Your task to perform on an android device: visit the assistant section in the google photos Image 0: 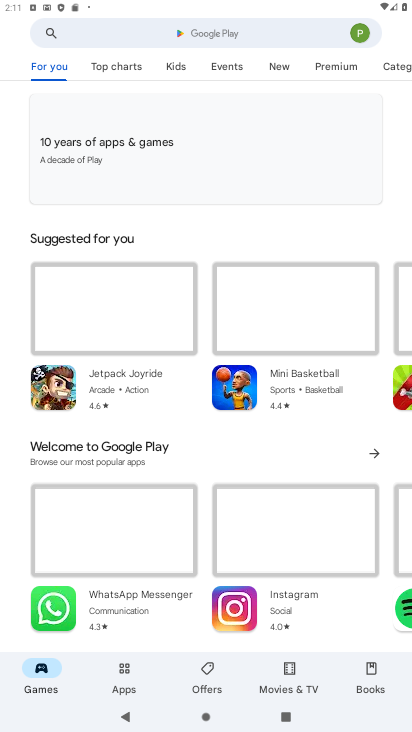
Step 0: press home button
Your task to perform on an android device: visit the assistant section in the google photos Image 1: 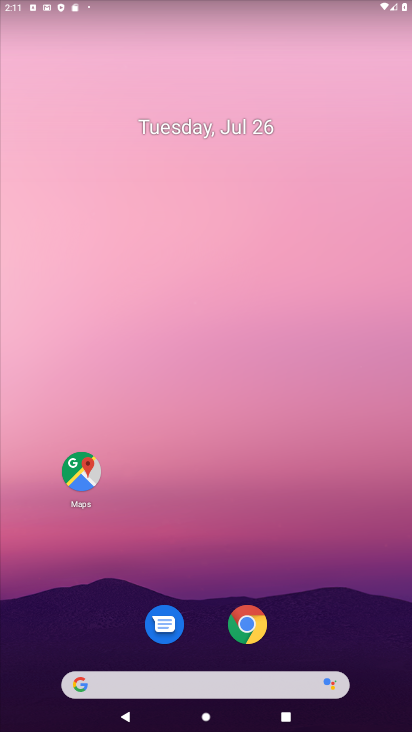
Step 1: drag from (203, 677) to (206, 77)
Your task to perform on an android device: visit the assistant section in the google photos Image 2: 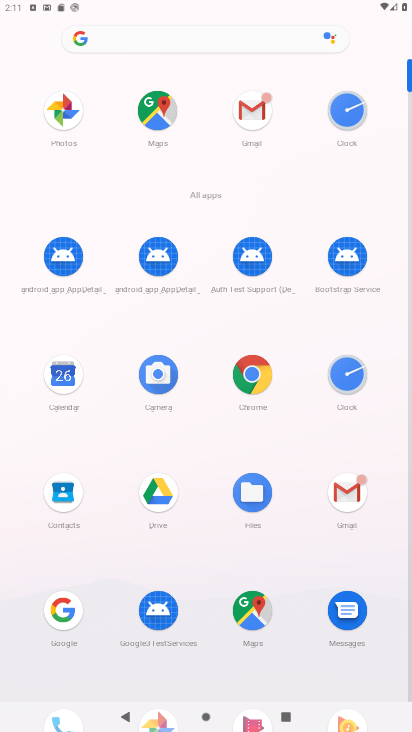
Step 2: drag from (204, 666) to (213, 296)
Your task to perform on an android device: visit the assistant section in the google photos Image 3: 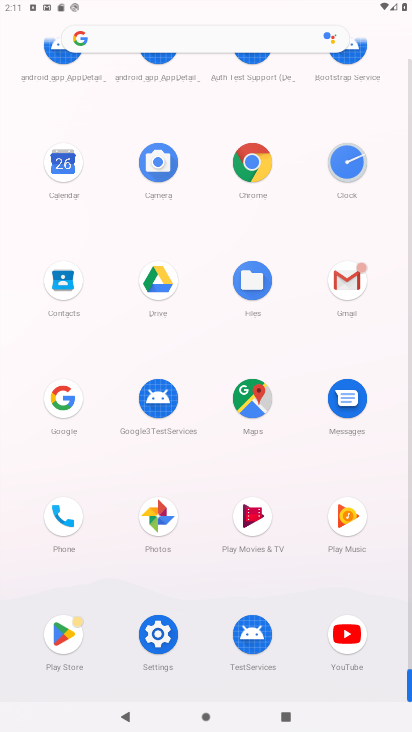
Step 3: click (162, 508)
Your task to perform on an android device: visit the assistant section in the google photos Image 4: 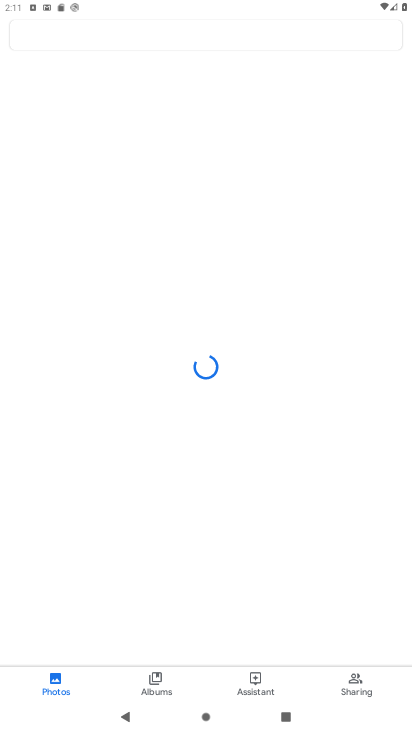
Step 4: click (254, 679)
Your task to perform on an android device: visit the assistant section in the google photos Image 5: 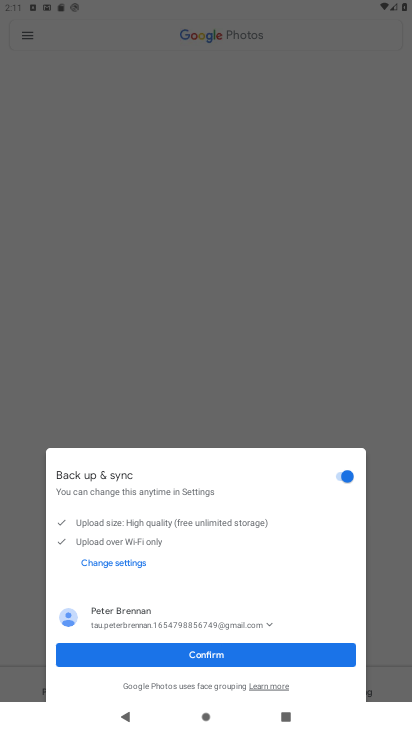
Step 5: click (205, 651)
Your task to perform on an android device: visit the assistant section in the google photos Image 6: 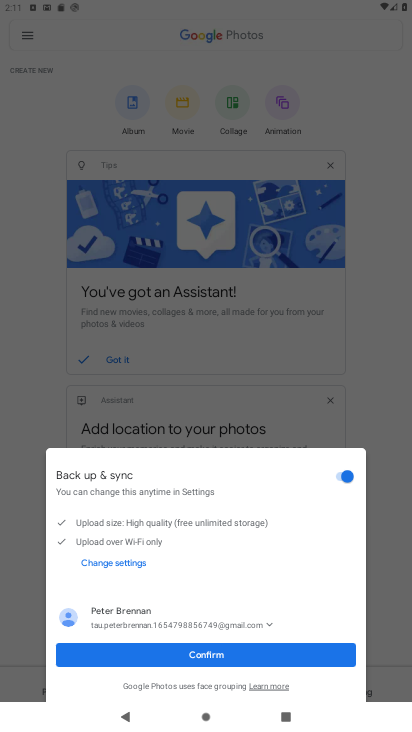
Step 6: click (203, 654)
Your task to perform on an android device: visit the assistant section in the google photos Image 7: 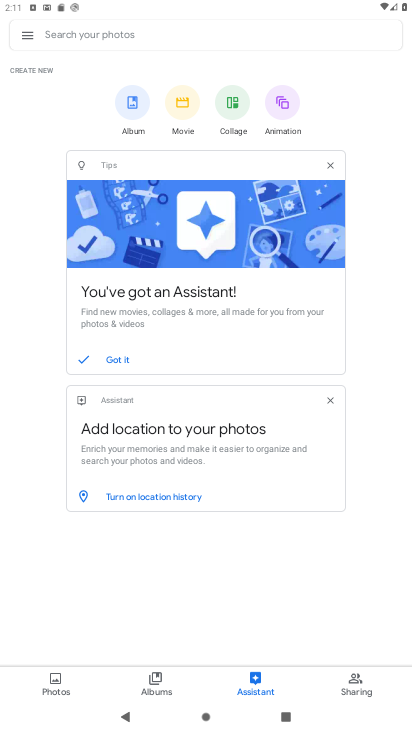
Step 7: task complete